Your task to perform on an android device: turn on the 24-hour format for clock Image 0: 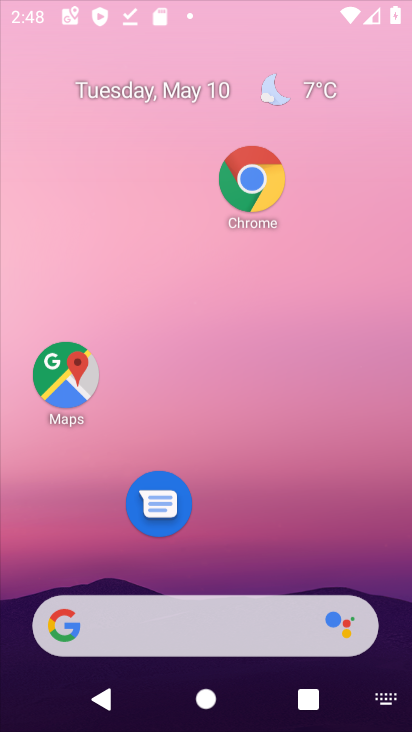
Step 0: click (234, 209)
Your task to perform on an android device: turn on the 24-hour format for clock Image 1: 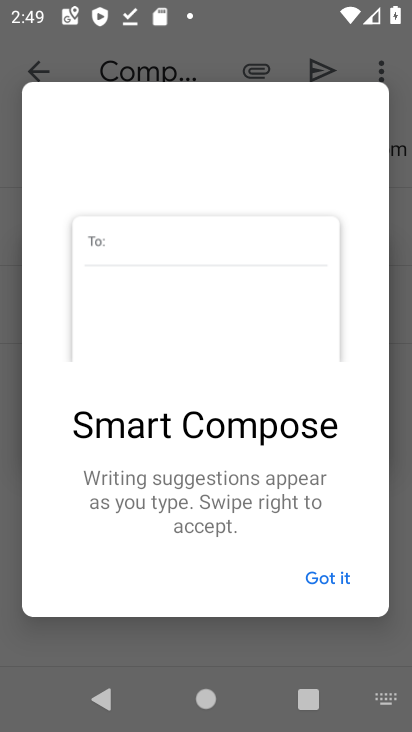
Step 1: click (339, 593)
Your task to perform on an android device: turn on the 24-hour format for clock Image 2: 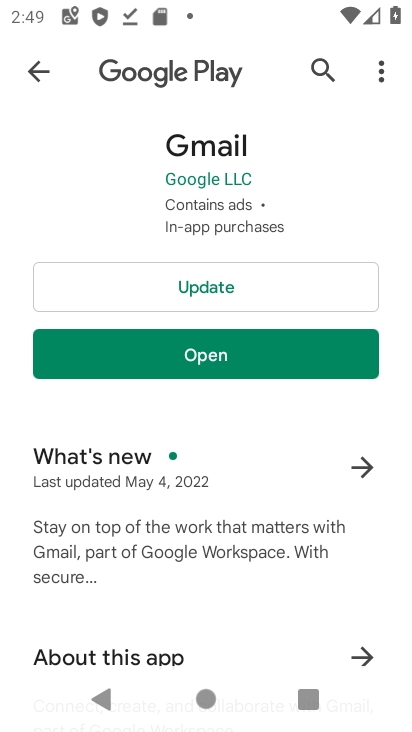
Step 2: press home button
Your task to perform on an android device: turn on the 24-hour format for clock Image 3: 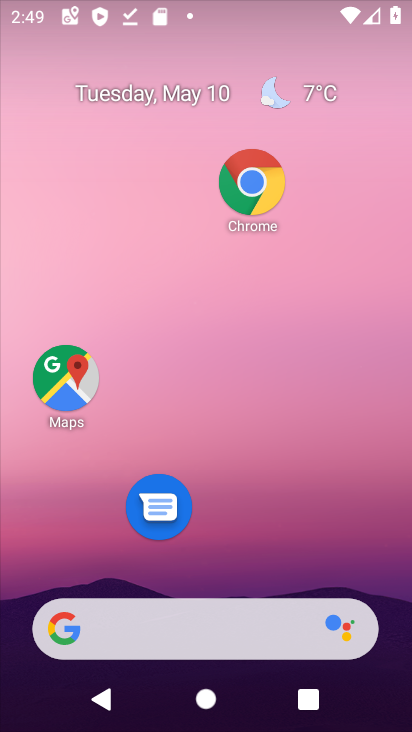
Step 3: drag from (297, 509) to (306, 298)
Your task to perform on an android device: turn on the 24-hour format for clock Image 4: 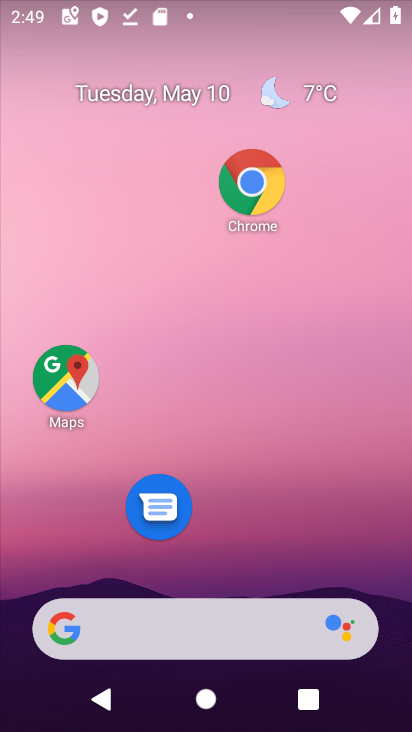
Step 4: drag from (283, 544) to (242, 46)
Your task to perform on an android device: turn on the 24-hour format for clock Image 5: 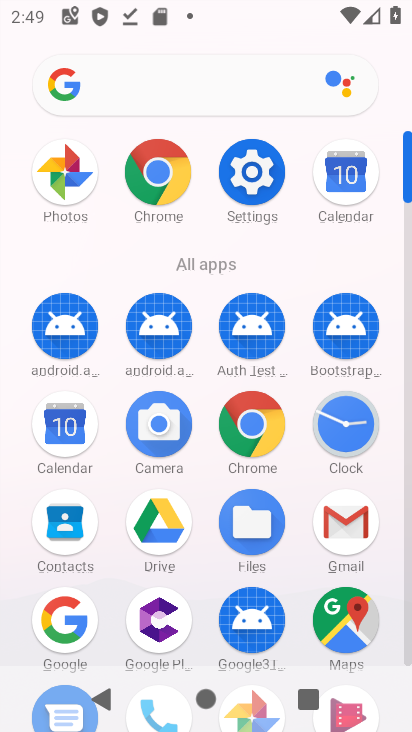
Step 5: click (264, 163)
Your task to perform on an android device: turn on the 24-hour format for clock Image 6: 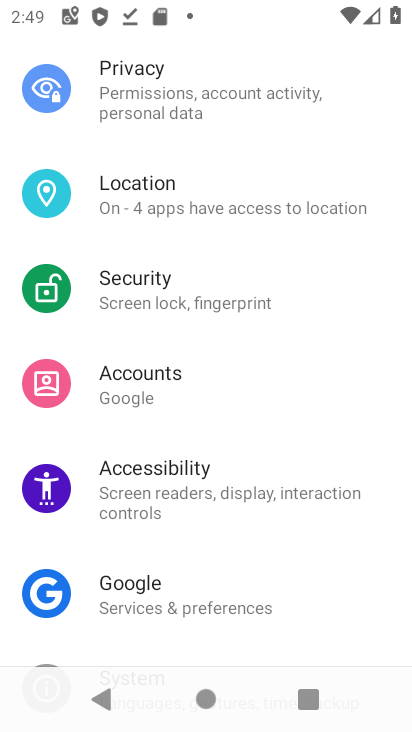
Step 6: press home button
Your task to perform on an android device: turn on the 24-hour format for clock Image 7: 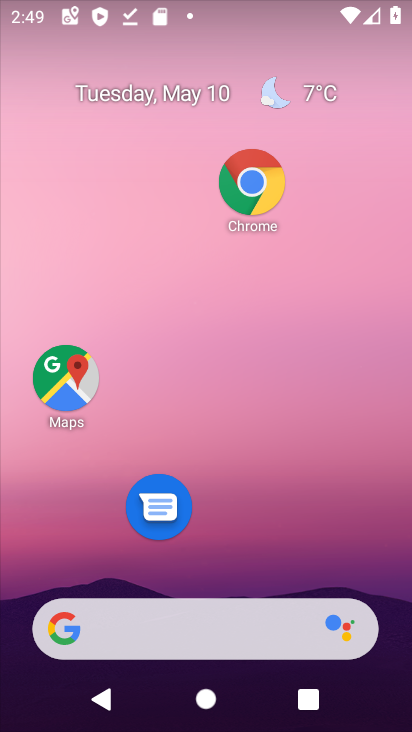
Step 7: drag from (343, 520) to (251, 125)
Your task to perform on an android device: turn on the 24-hour format for clock Image 8: 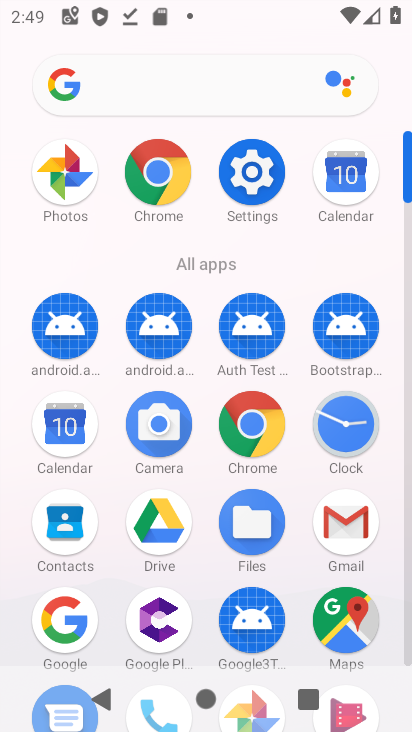
Step 8: click (339, 446)
Your task to perform on an android device: turn on the 24-hour format for clock Image 9: 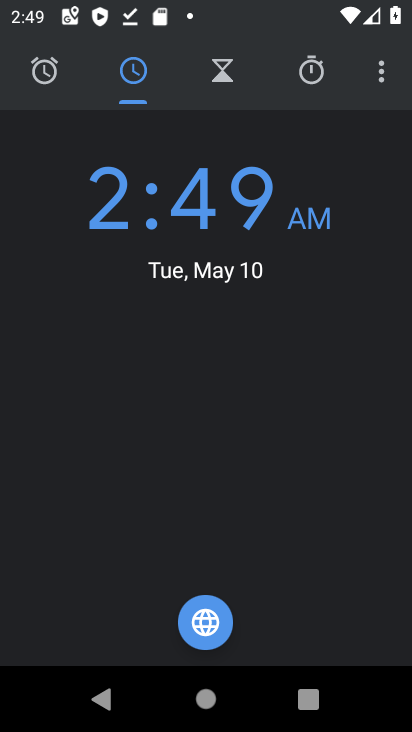
Step 9: click (378, 83)
Your task to perform on an android device: turn on the 24-hour format for clock Image 10: 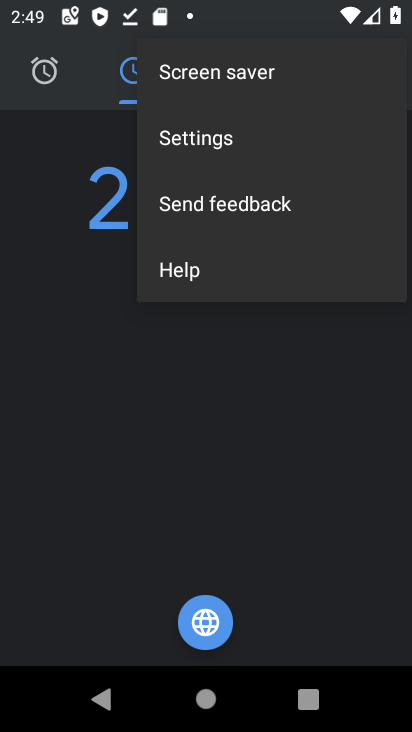
Step 10: click (249, 156)
Your task to perform on an android device: turn on the 24-hour format for clock Image 11: 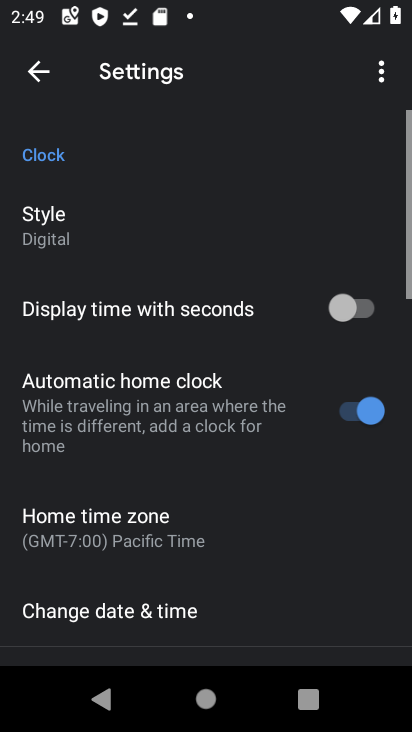
Step 11: drag from (241, 624) to (79, 171)
Your task to perform on an android device: turn on the 24-hour format for clock Image 12: 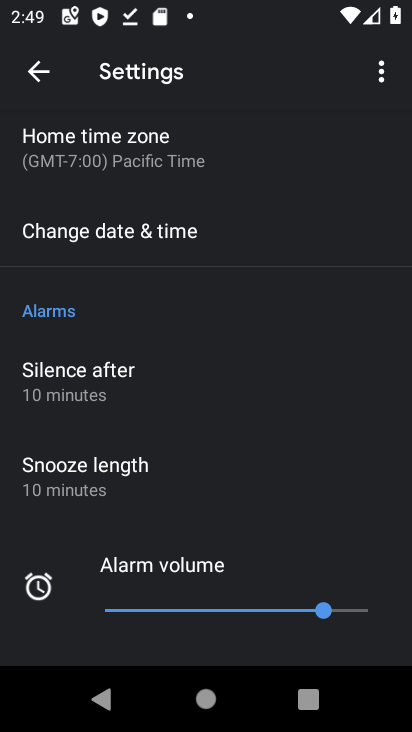
Step 12: drag from (141, 483) to (102, 224)
Your task to perform on an android device: turn on the 24-hour format for clock Image 13: 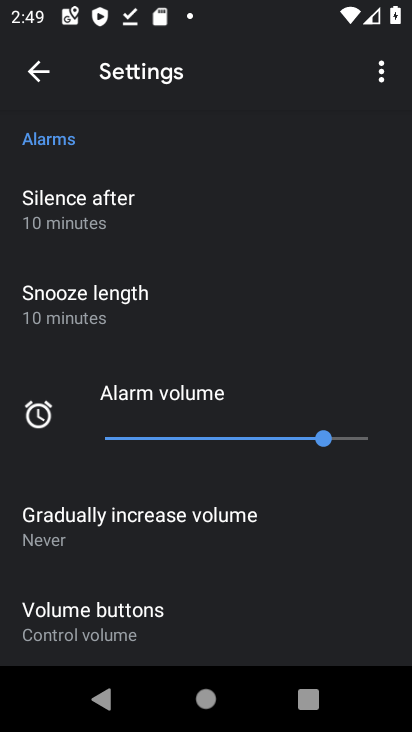
Step 13: drag from (102, 224) to (193, 644)
Your task to perform on an android device: turn on the 24-hour format for clock Image 14: 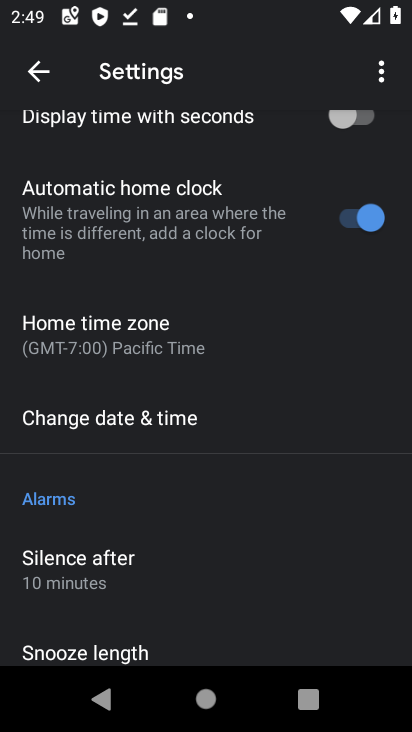
Step 14: drag from (188, 355) to (212, 417)
Your task to perform on an android device: turn on the 24-hour format for clock Image 15: 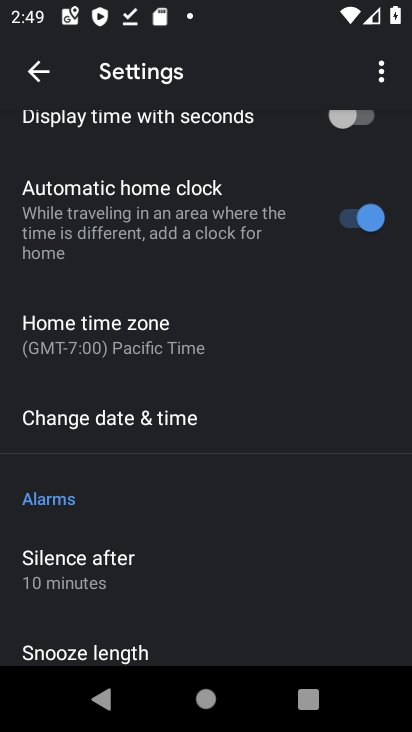
Step 15: click (212, 417)
Your task to perform on an android device: turn on the 24-hour format for clock Image 16: 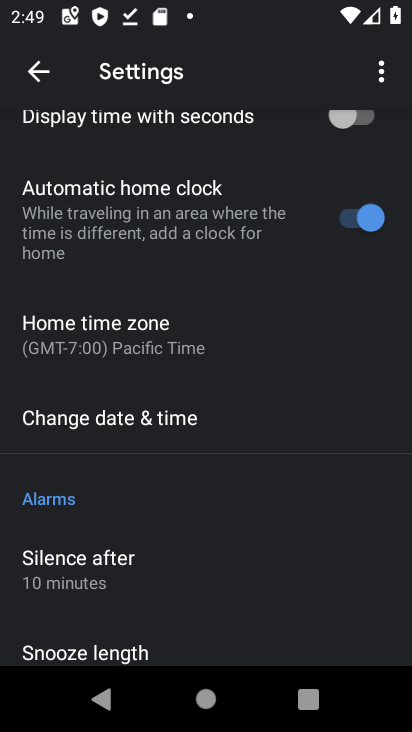
Step 16: click (212, 417)
Your task to perform on an android device: turn on the 24-hour format for clock Image 17: 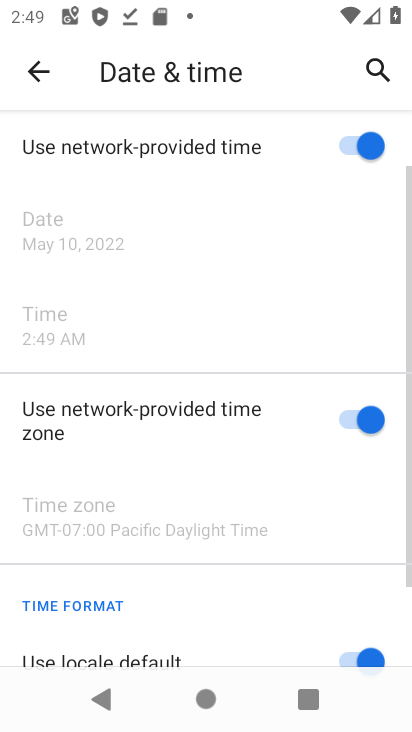
Step 17: drag from (208, 536) to (190, 234)
Your task to perform on an android device: turn on the 24-hour format for clock Image 18: 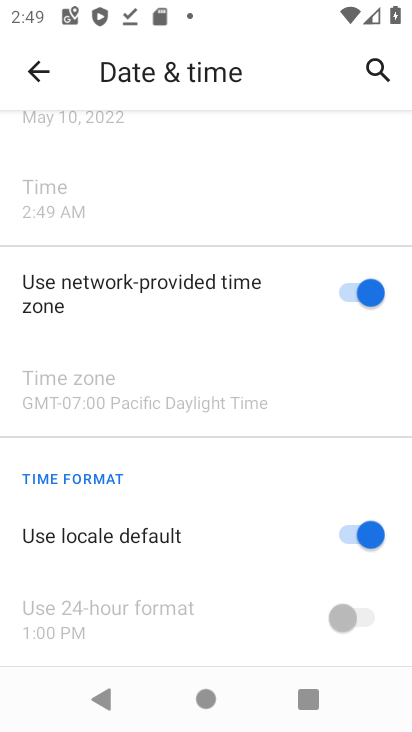
Step 18: click (322, 475)
Your task to perform on an android device: turn on the 24-hour format for clock Image 19: 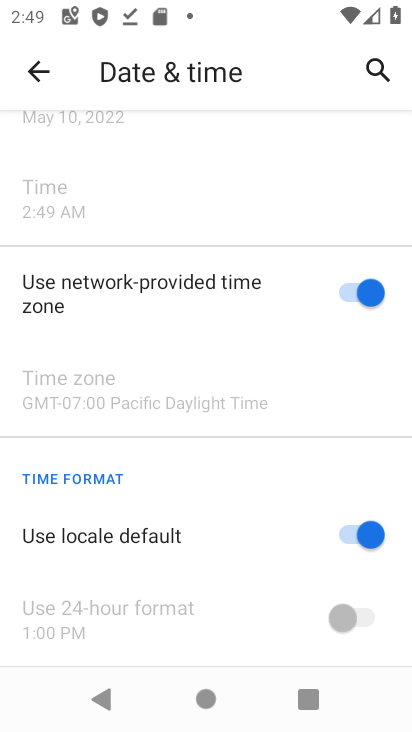
Step 19: click (344, 524)
Your task to perform on an android device: turn on the 24-hour format for clock Image 20: 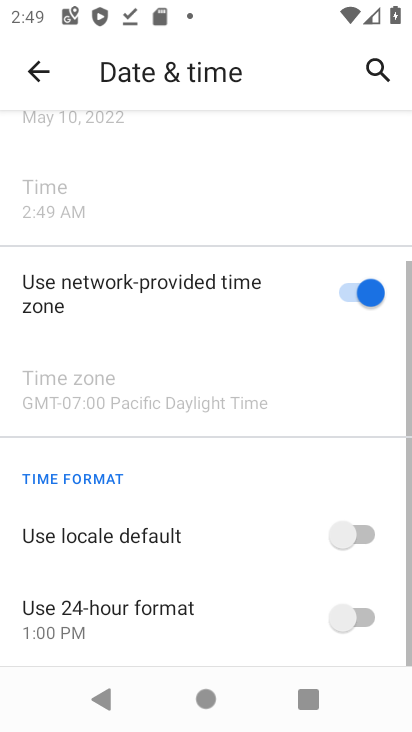
Step 20: click (354, 611)
Your task to perform on an android device: turn on the 24-hour format for clock Image 21: 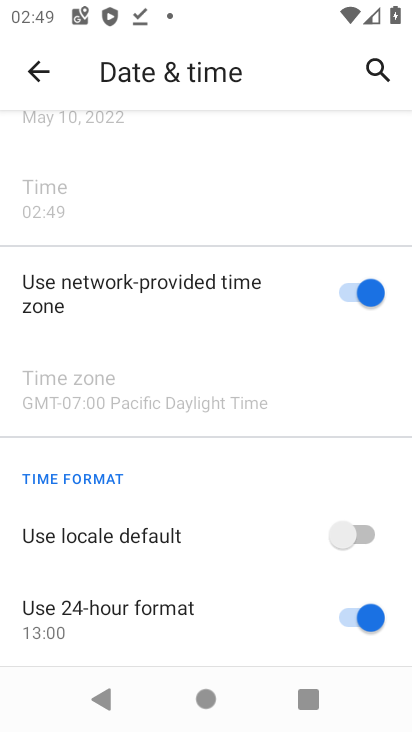
Step 21: task complete